Your task to perform on an android device: Check the news Image 0: 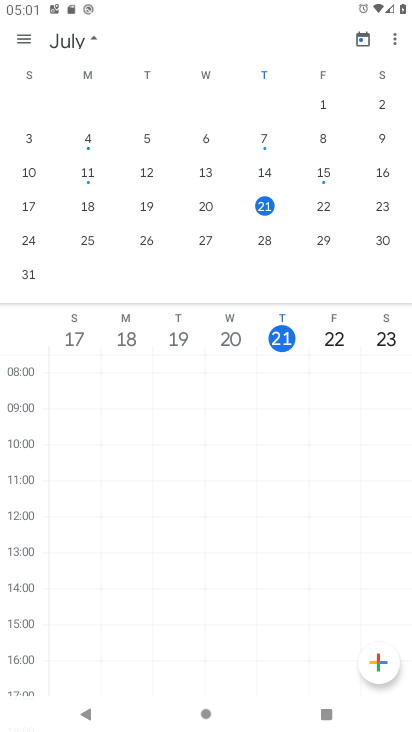
Step 0: press home button
Your task to perform on an android device: Check the news Image 1: 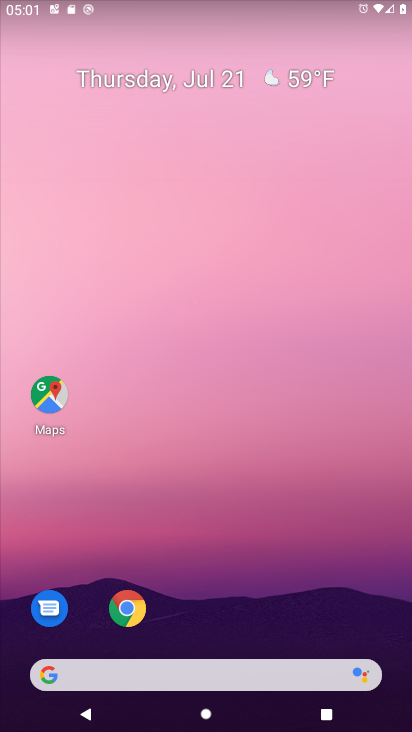
Step 1: drag from (264, 690) to (316, 121)
Your task to perform on an android device: Check the news Image 2: 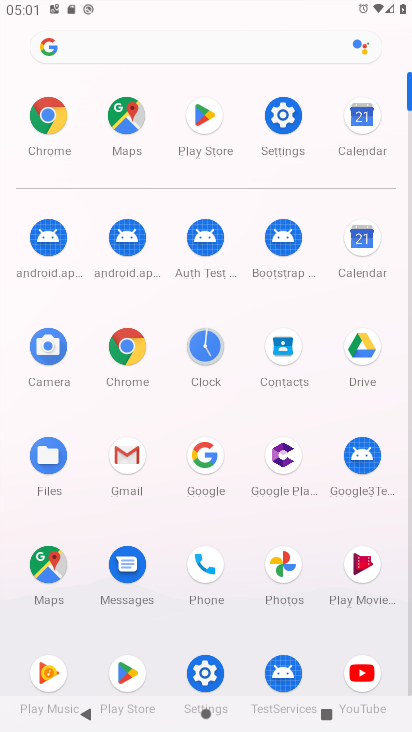
Step 2: click (124, 338)
Your task to perform on an android device: Check the news Image 3: 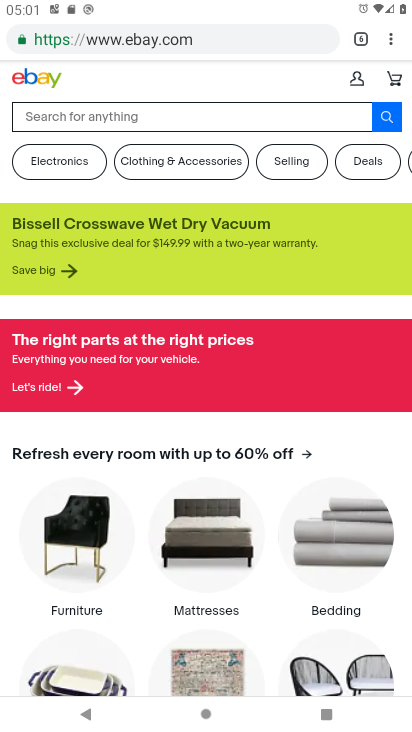
Step 3: click (146, 29)
Your task to perform on an android device: Check the news Image 4: 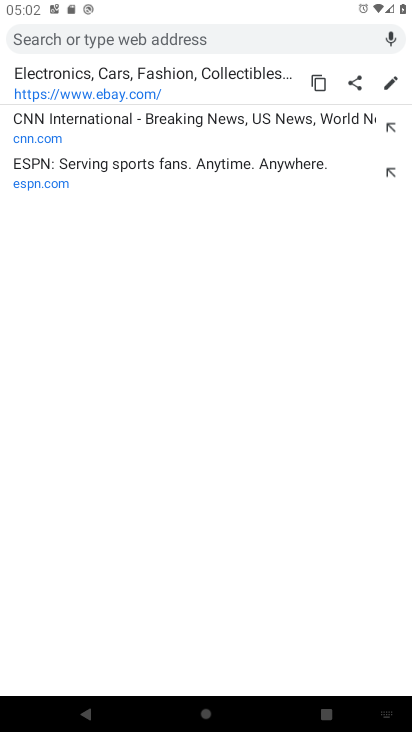
Step 4: type "check the news"
Your task to perform on an android device: Check the news Image 5: 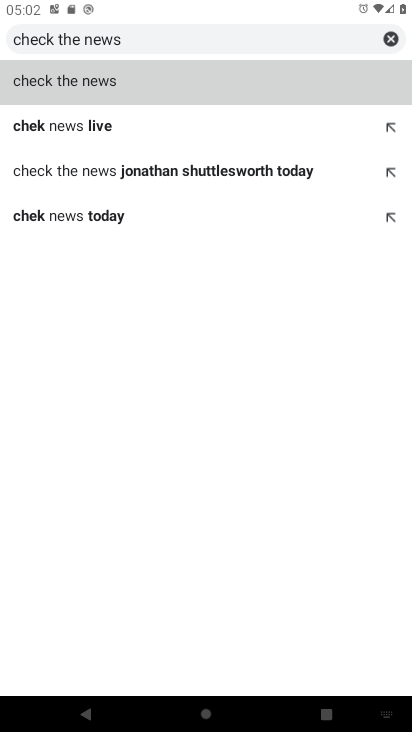
Step 5: click (66, 102)
Your task to perform on an android device: Check the news Image 6: 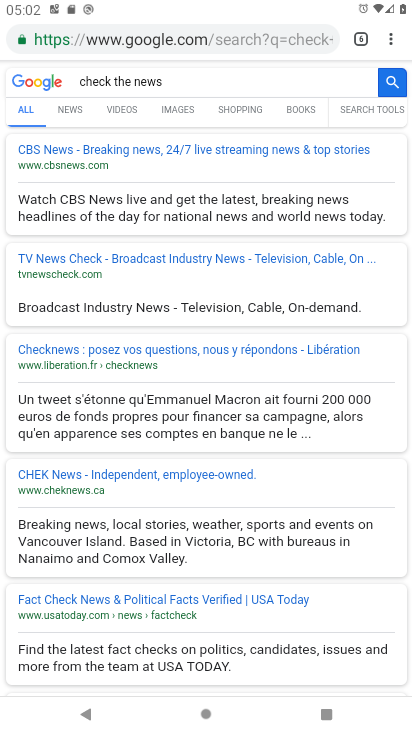
Step 6: task complete